Your task to perform on an android device: turn on bluetooth scan Image 0: 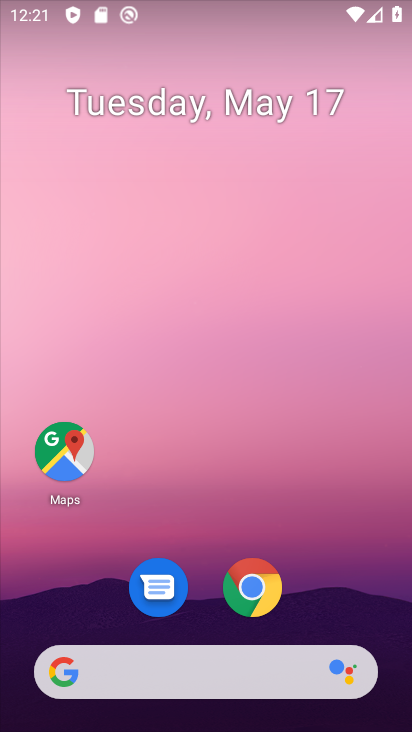
Step 0: drag from (208, 652) to (276, 50)
Your task to perform on an android device: turn on bluetooth scan Image 1: 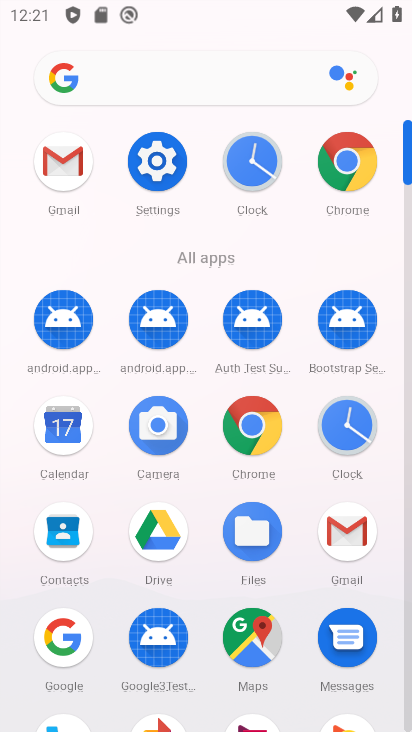
Step 1: click (153, 162)
Your task to perform on an android device: turn on bluetooth scan Image 2: 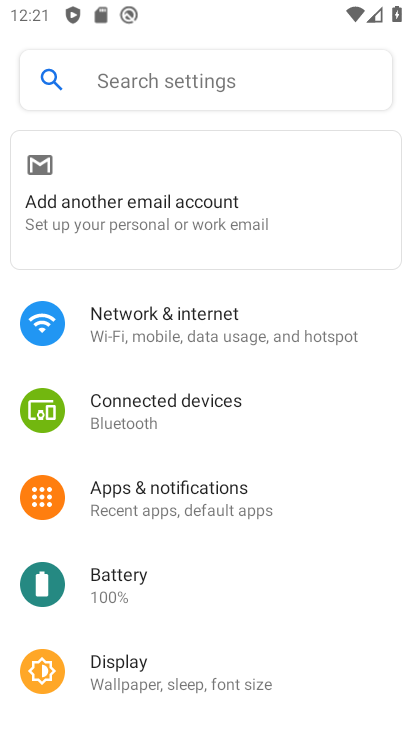
Step 2: drag from (191, 590) to (167, 110)
Your task to perform on an android device: turn on bluetooth scan Image 3: 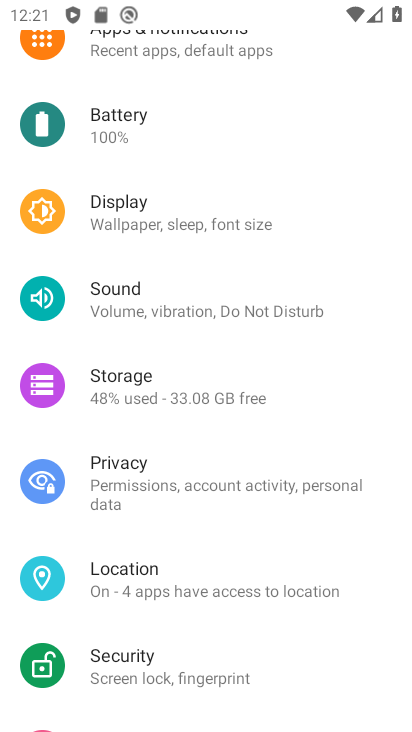
Step 3: click (188, 556)
Your task to perform on an android device: turn on bluetooth scan Image 4: 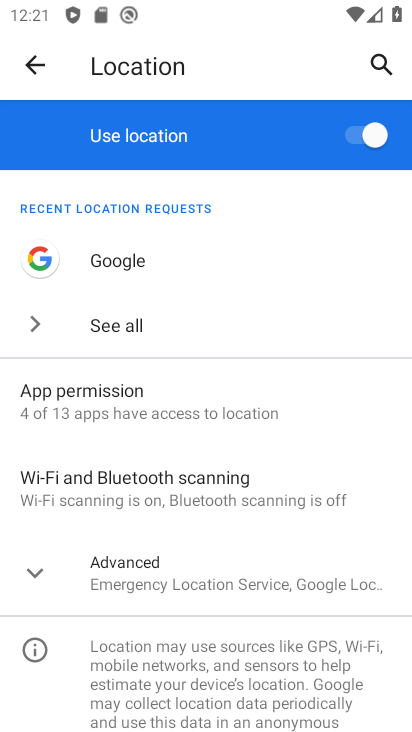
Step 4: click (139, 461)
Your task to perform on an android device: turn on bluetooth scan Image 5: 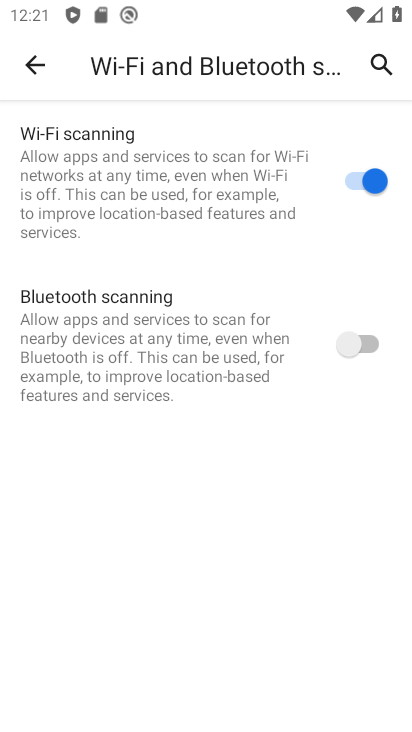
Step 5: click (379, 331)
Your task to perform on an android device: turn on bluetooth scan Image 6: 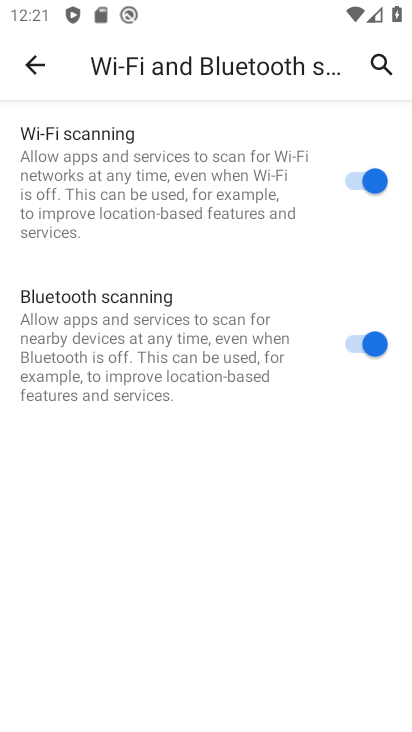
Step 6: task complete